Your task to perform on an android device: turn off airplane mode Image 0: 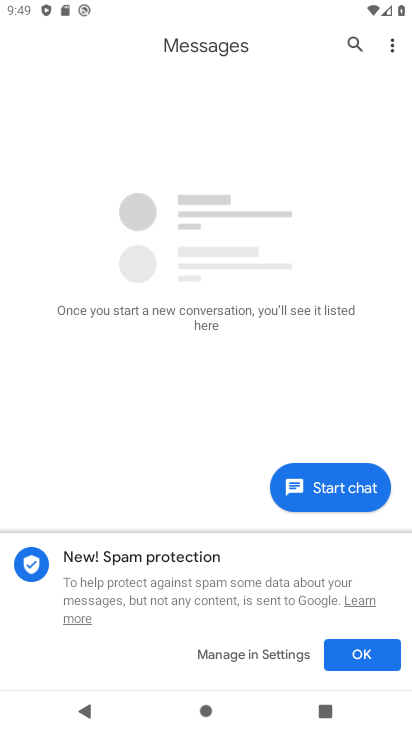
Step 0: drag from (323, 11) to (215, 529)
Your task to perform on an android device: turn off airplane mode Image 1: 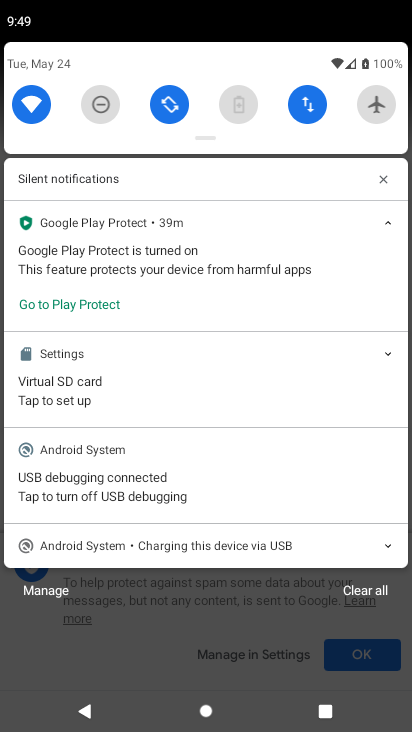
Step 1: task complete